Your task to perform on an android device: find snoozed emails in the gmail app Image 0: 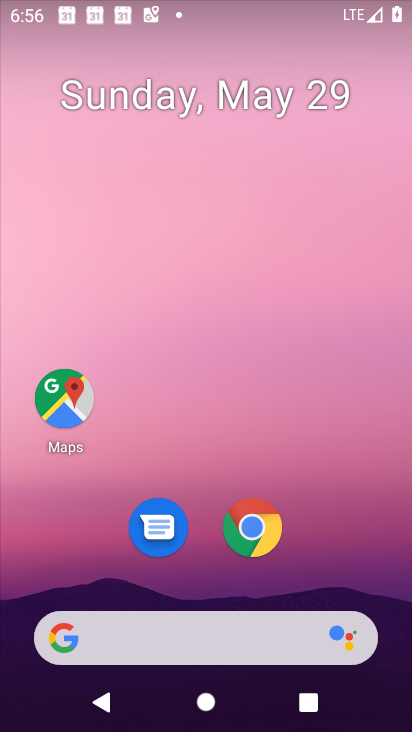
Step 0: drag from (390, 619) to (365, 29)
Your task to perform on an android device: find snoozed emails in the gmail app Image 1: 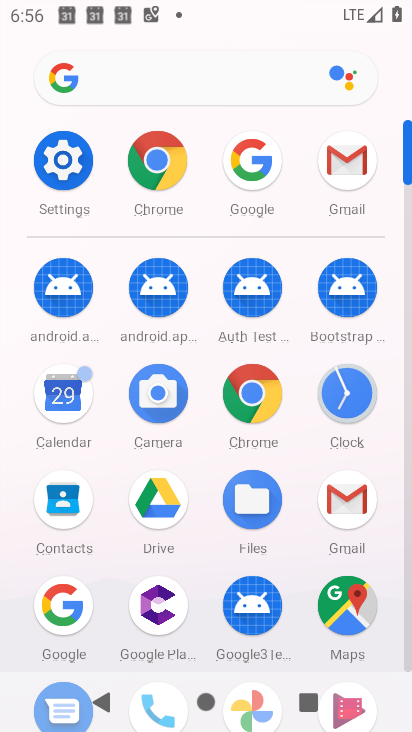
Step 1: click (364, 488)
Your task to perform on an android device: find snoozed emails in the gmail app Image 2: 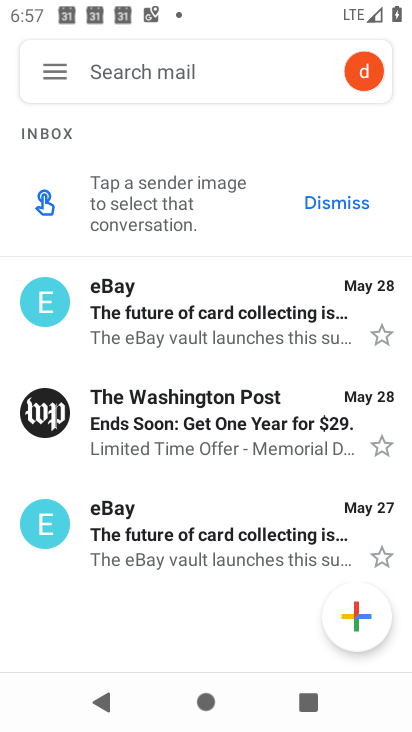
Step 2: click (43, 78)
Your task to perform on an android device: find snoozed emails in the gmail app Image 3: 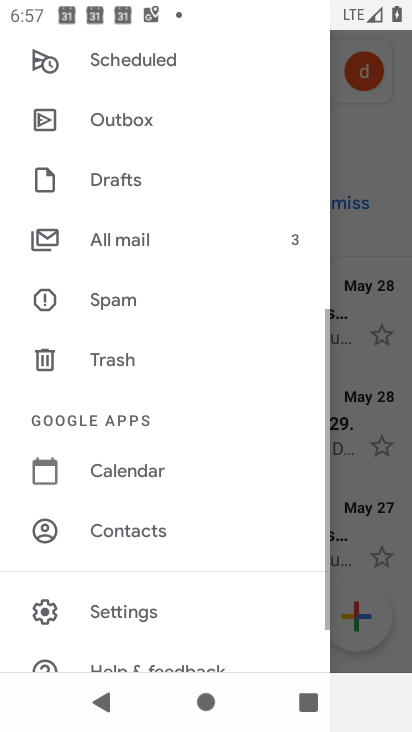
Step 3: drag from (82, 242) to (137, 672)
Your task to perform on an android device: find snoozed emails in the gmail app Image 4: 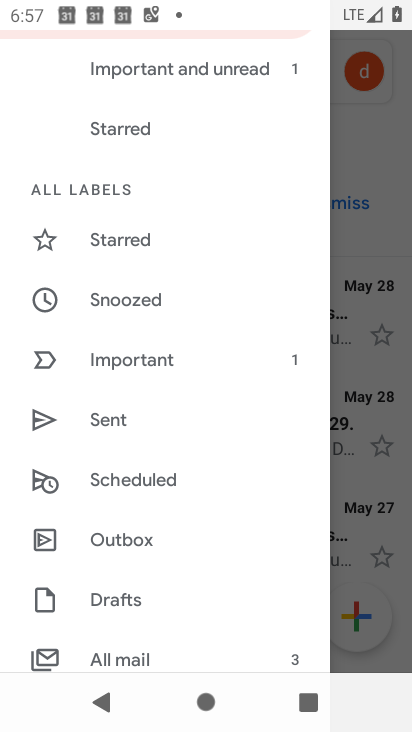
Step 4: drag from (169, 219) to (212, 367)
Your task to perform on an android device: find snoozed emails in the gmail app Image 5: 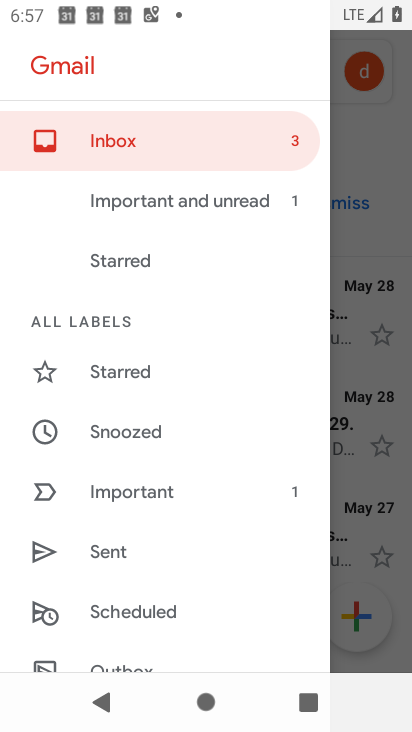
Step 5: click (154, 417)
Your task to perform on an android device: find snoozed emails in the gmail app Image 6: 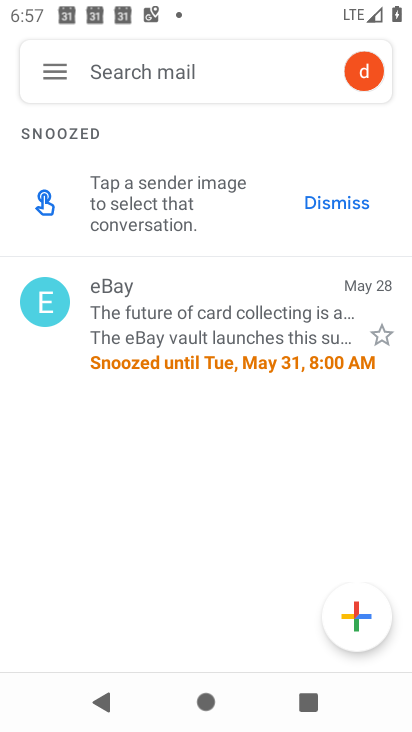
Step 6: task complete